Your task to perform on an android device: star an email in the gmail app Image 0: 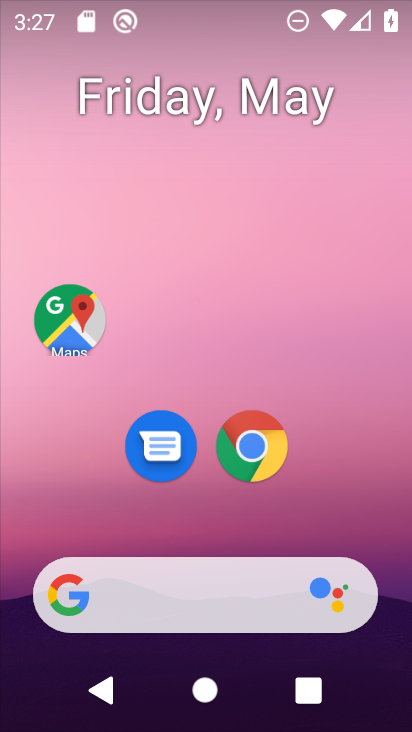
Step 0: drag from (306, 503) to (332, 82)
Your task to perform on an android device: star an email in the gmail app Image 1: 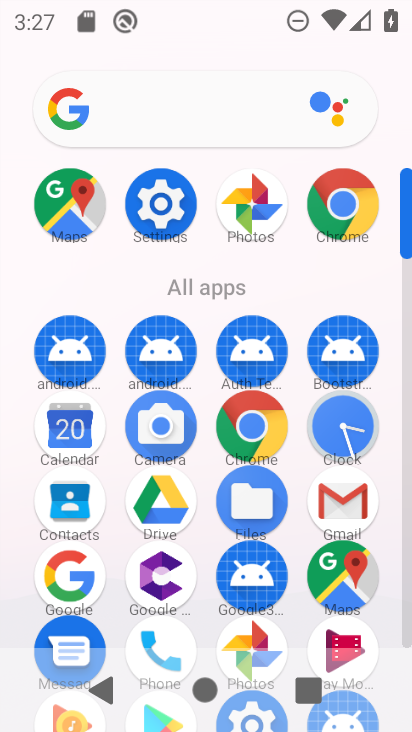
Step 1: drag from (296, 307) to (338, 55)
Your task to perform on an android device: star an email in the gmail app Image 2: 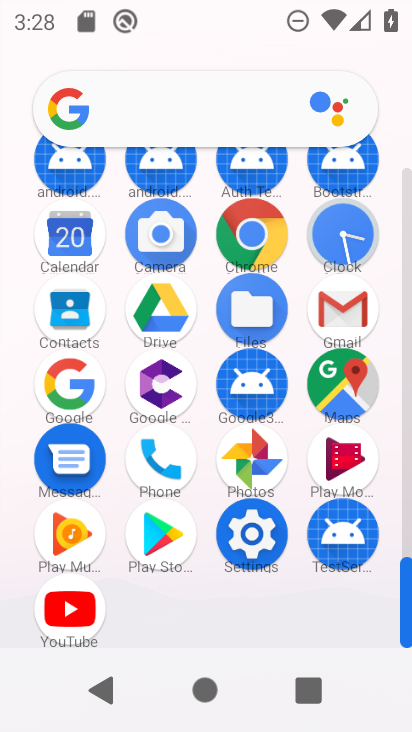
Step 2: click (342, 313)
Your task to perform on an android device: star an email in the gmail app Image 3: 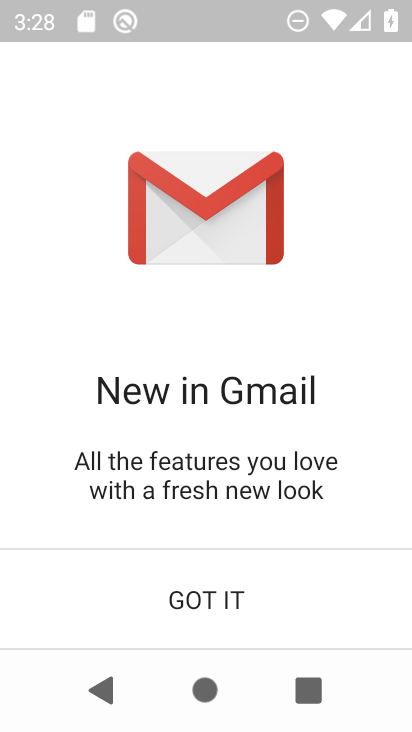
Step 3: click (200, 603)
Your task to perform on an android device: star an email in the gmail app Image 4: 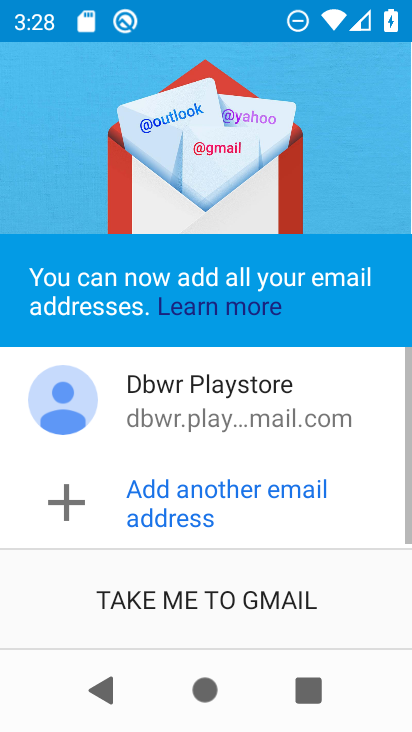
Step 4: click (200, 603)
Your task to perform on an android device: star an email in the gmail app Image 5: 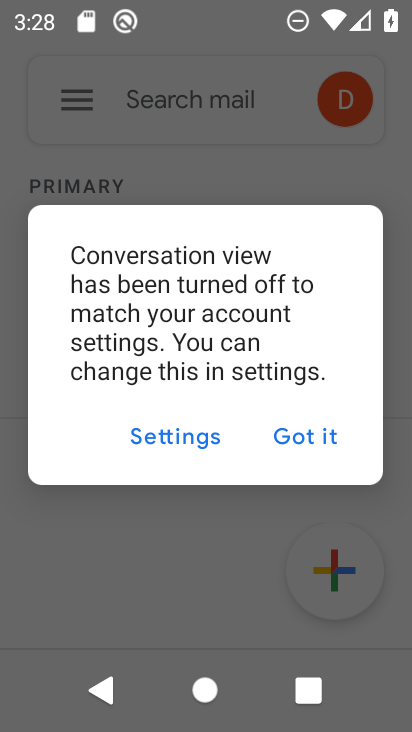
Step 5: click (315, 436)
Your task to perform on an android device: star an email in the gmail app Image 6: 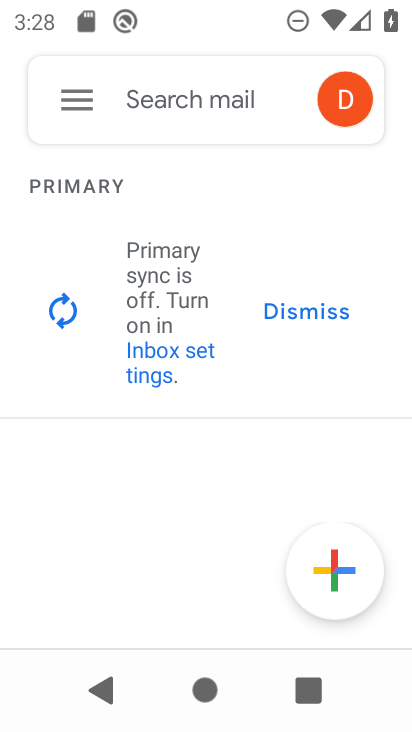
Step 6: task complete